Your task to perform on an android device: What's the weather going to be tomorrow? Image 0: 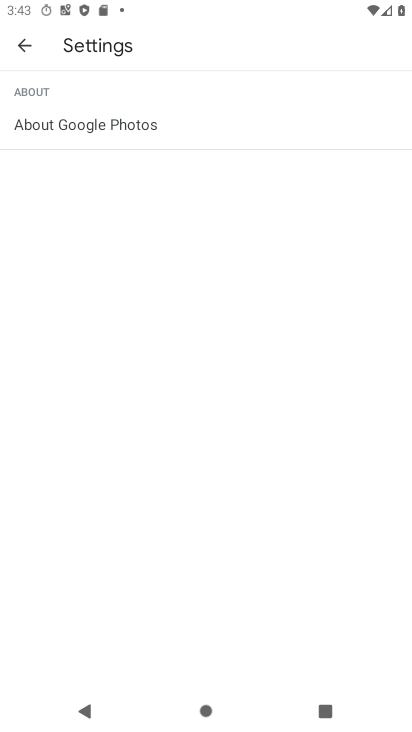
Step 0: press home button
Your task to perform on an android device: What's the weather going to be tomorrow? Image 1: 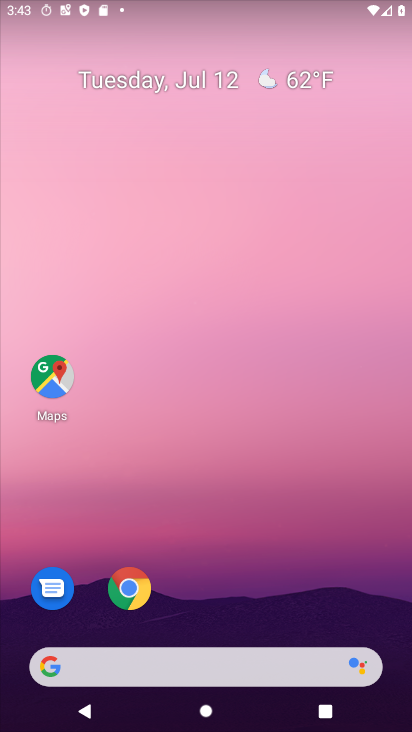
Step 1: drag from (216, 617) to (192, 0)
Your task to perform on an android device: What's the weather going to be tomorrow? Image 2: 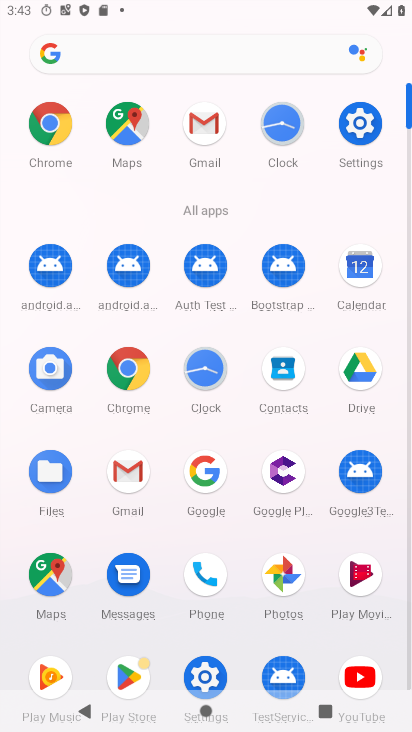
Step 2: click (192, 53)
Your task to perform on an android device: What's the weather going to be tomorrow? Image 3: 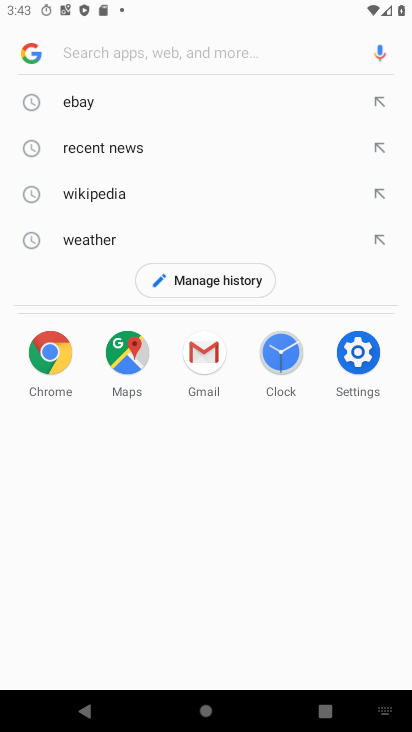
Step 3: type "weather"
Your task to perform on an android device: What's the weather going to be tomorrow? Image 4: 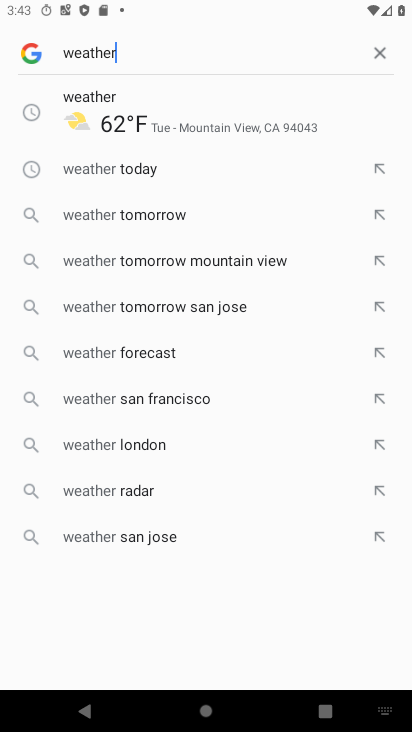
Step 4: click (134, 172)
Your task to perform on an android device: What's the weather going to be tomorrow? Image 5: 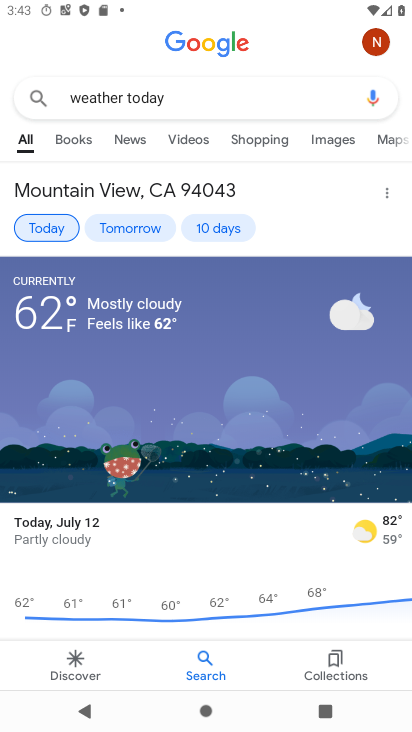
Step 5: click (149, 286)
Your task to perform on an android device: What's the weather going to be tomorrow? Image 6: 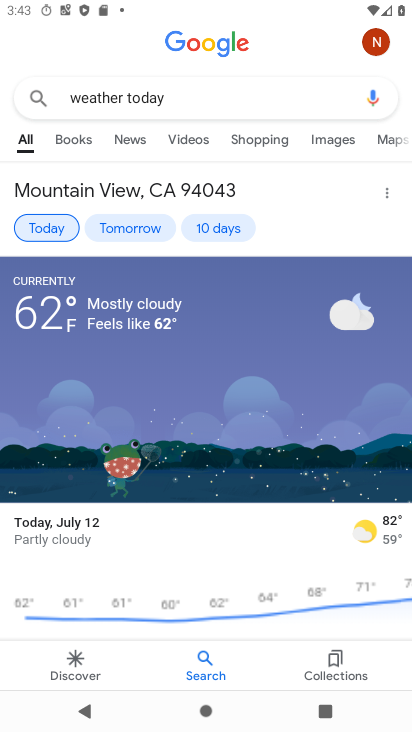
Step 6: click (141, 232)
Your task to perform on an android device: What's the weather going to be tomorrow? Image 7: 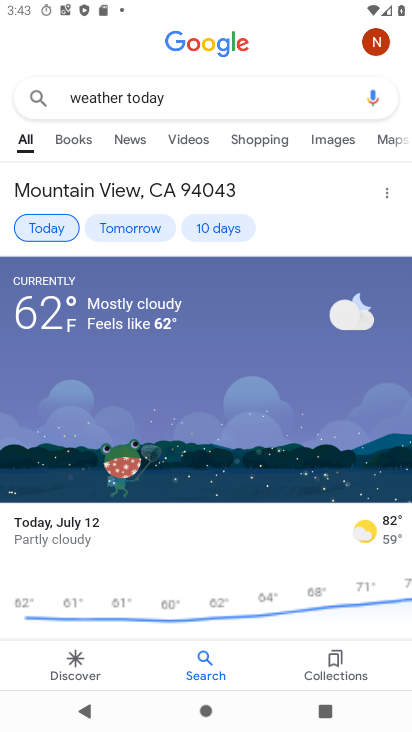
Step 7: click (141, 234)
Your task to perform on an android device: What's the weather going to be tomorrow? Image 8: 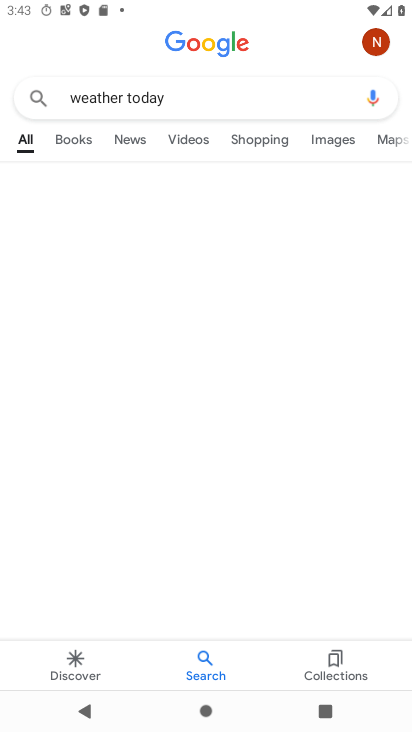
Step 8: click (121, 225)
Your task to perform on an android device: What's the weather going to be tomorrow? Image 9: 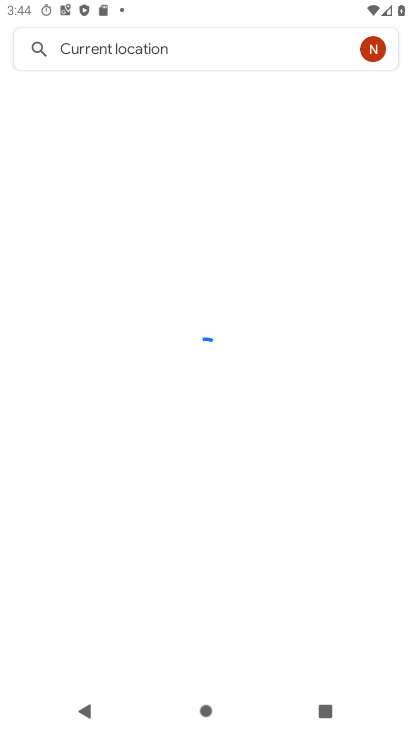
Step 9: task complete